Your task to perform on an android device: Show me productivity apps on the Play Store Image 0: 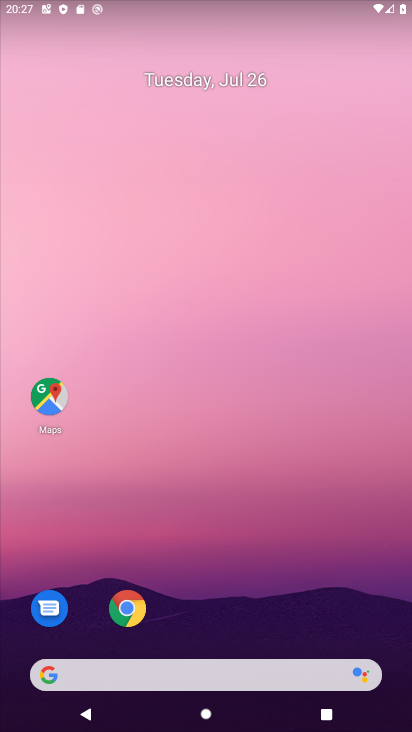
Step 0: drag from (33, 703) to (280, 57)
Your task to perform on an android device: Show me productivity apps on the Play Store Image 1: 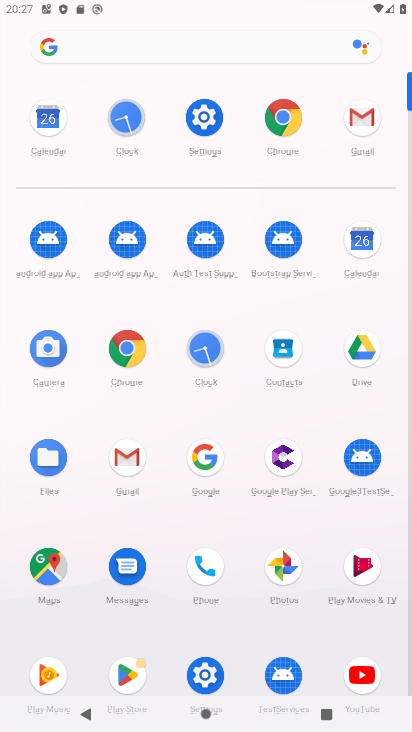
Step 1: click (126, 686)
Your task to perform on an android device: Show me productivity apps on the Play Store Image 2: 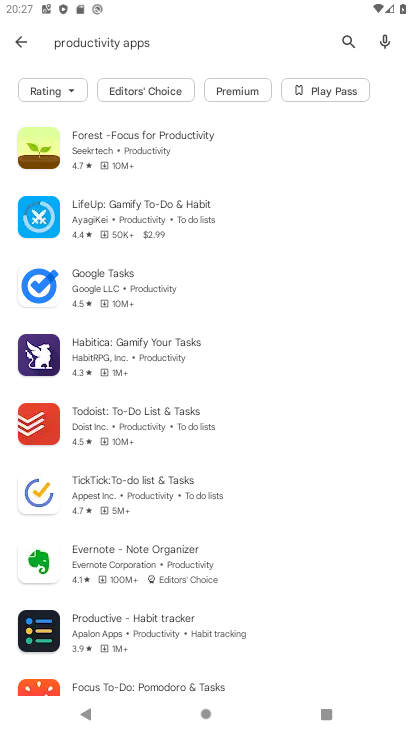
Step 2: task complete